Your task to perform on an android device: turn on wifi Image 0: 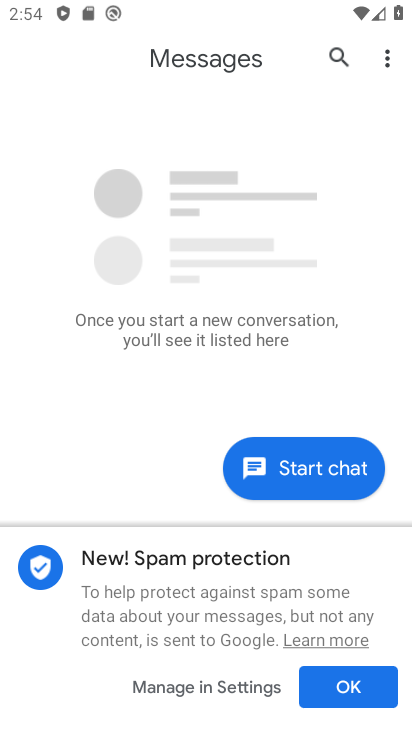
Step 0: press home button
Your task to perform on an android device: turn on wifi Image 1: 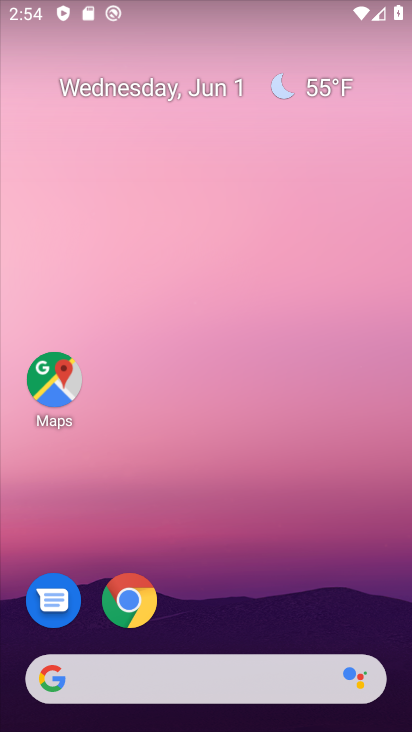
Step 1: drag from (230, 628) to (316, 33)
Your task to perform on an android device: turn on wifi Image 2: 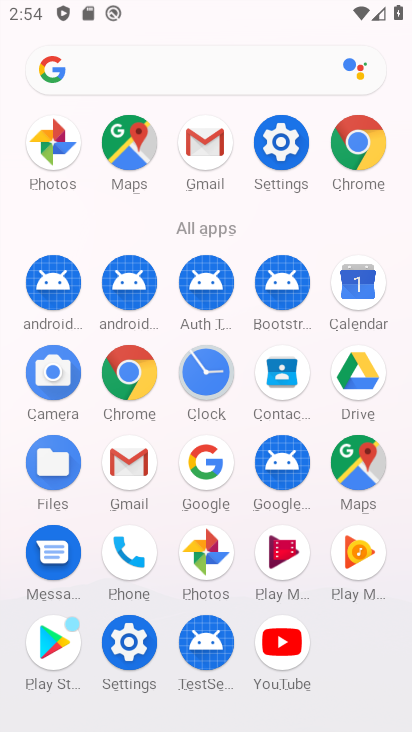
Step 2: click (134, 651)
Your task to perform on an android device: turn on wifi Image 3: 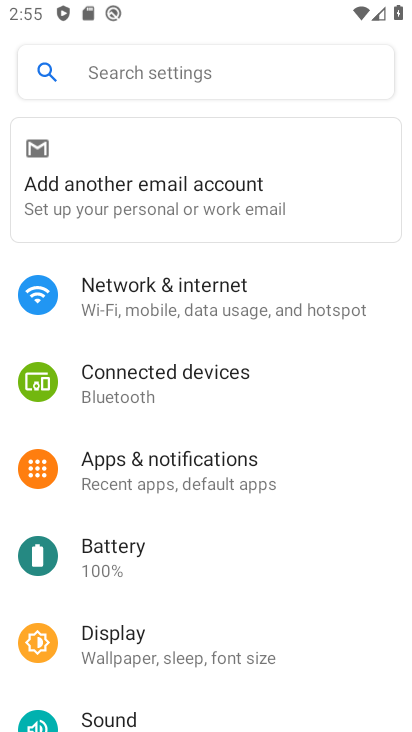
Step 3: click (198, 315)
Your task to perform on an android device: turn on wifi Image 4: 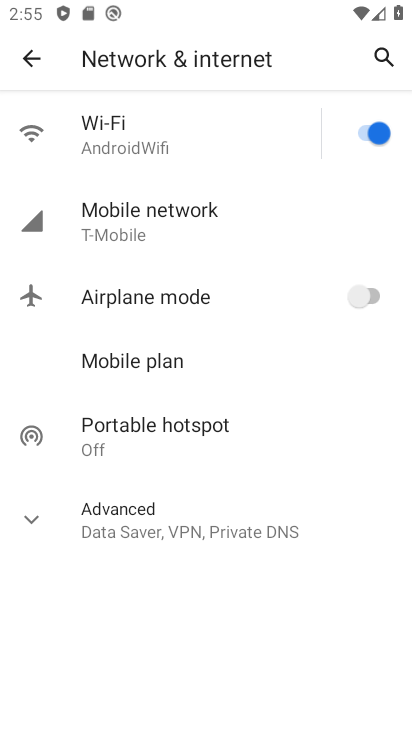
Step 4: task complete